Your task to perform on an android device: Do I have any events tomorrow? Image 0: 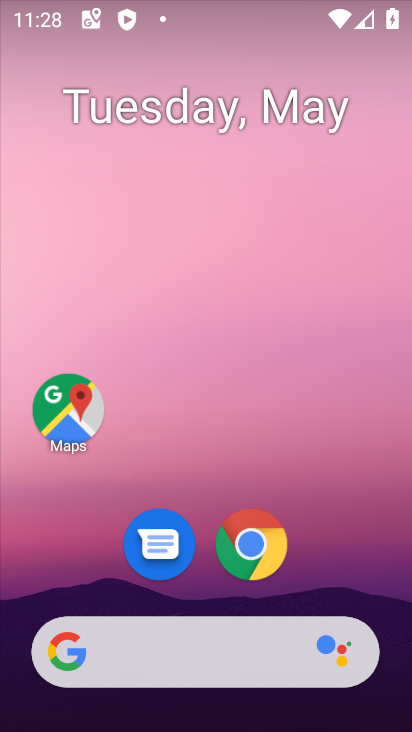
Step 0: drag from (281, 456) to (189, 176)
Your task to perform on an android device: Do I have any events tomorrow? Image 1: 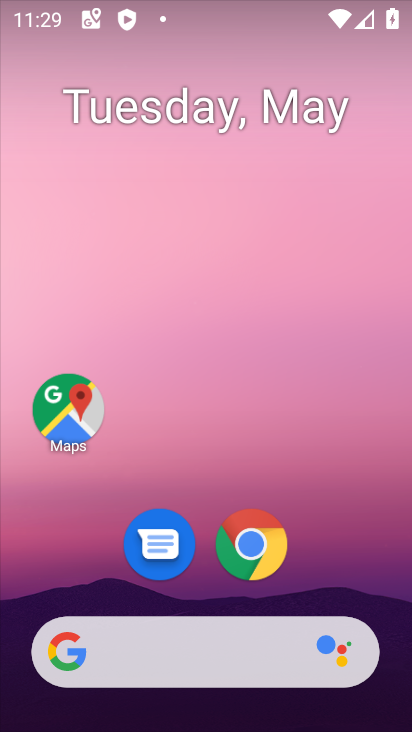
Step 1: drag from (368, 517) to (152, 2)
Your task to perform on an android device: Do I have any events tomorrow? Image 2: 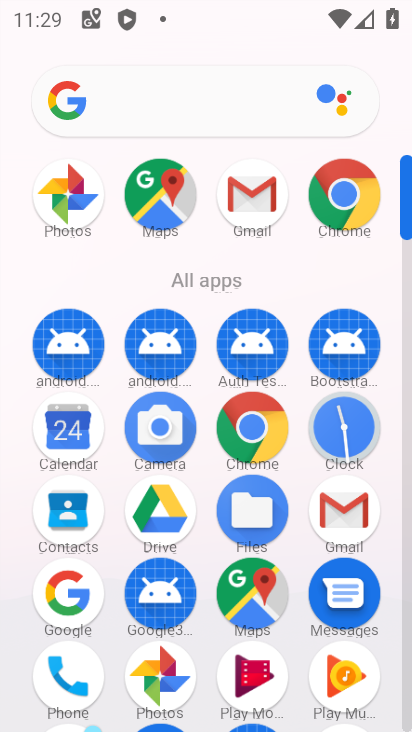
Step 2: click (346, 201)
Your task to perform on an android device: Do I have any events tomorrow? Image 3: 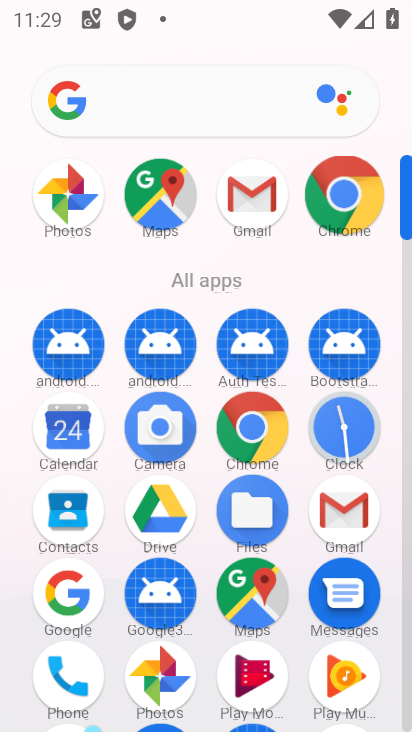
Step 3: click (350, 207)
Your task to perform on an android device: Do I have any events tomorrow? Image 4: 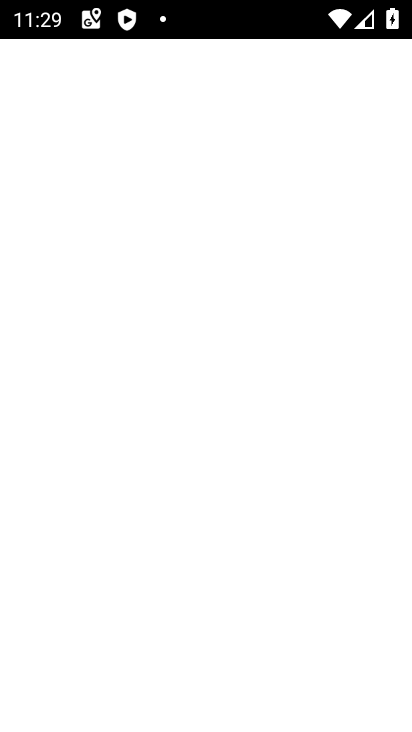
Step 4: click (349, 205)
Your task to perform on an android device: Do I have any events tomorrow? Image 5: 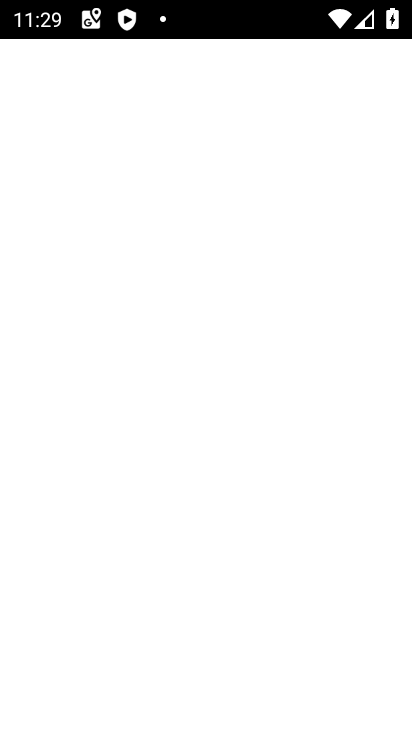
Step 5: click (349, 205)
Your task to perform on an android device: Do I have any events tomorrow? Image 6: 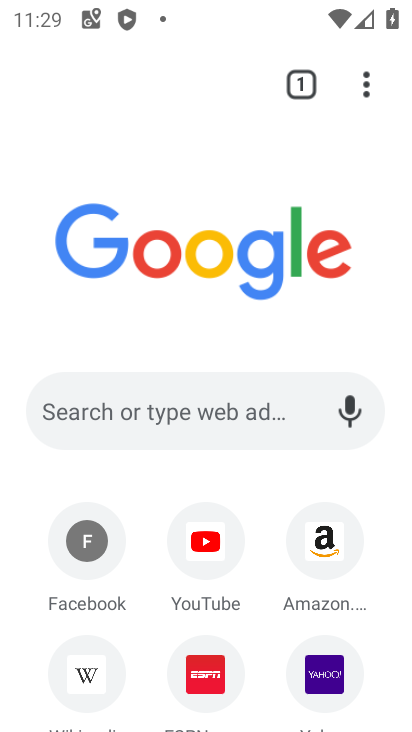
Step 6: press back button
Your task to perform on an android device: Do I have any events tomorrow? Image 7: 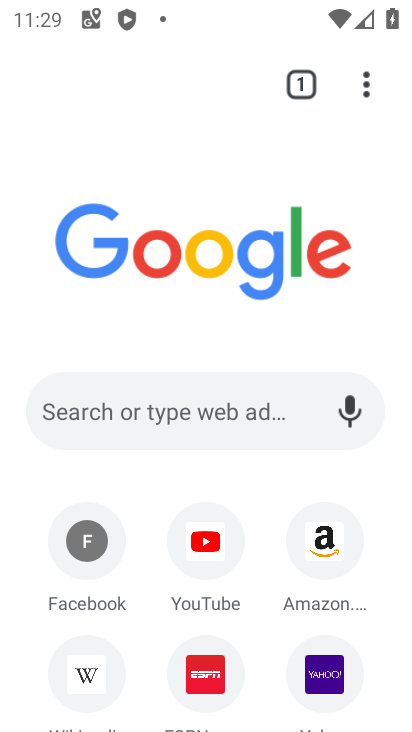
Step 7: press back button
Your task to perform on an android device: Do I have any events tomorrow? Image 8: 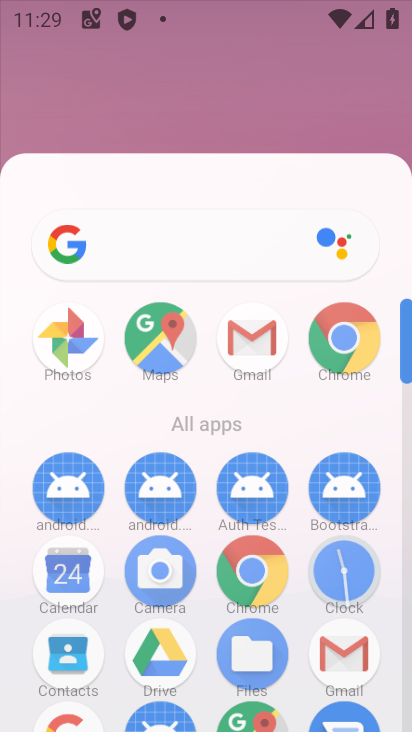
Step 8: press back button
Your task to perform on an android device: Do I have any events tomorrow? Image 9: 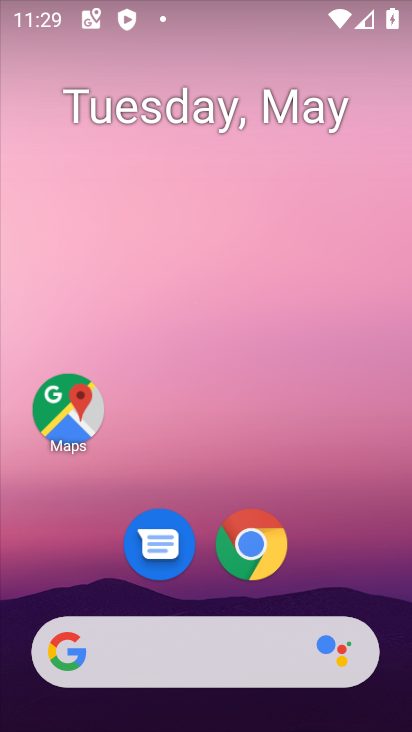
Step 9: drag from (309, 669) to (215, 129)
Your task to perform on an android device: Do I have any events tomorrow? Image 10: 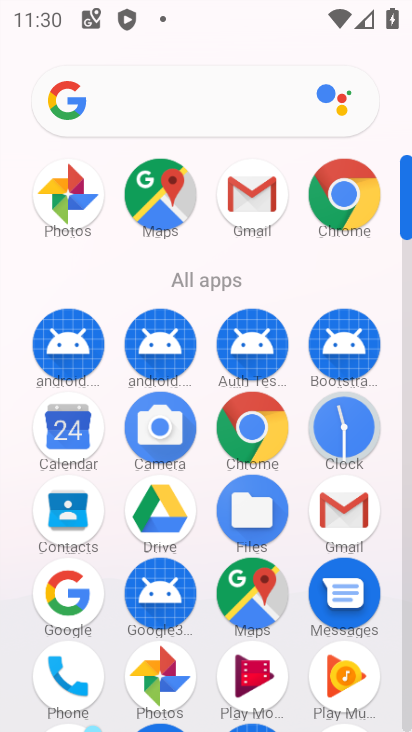
Step 10: drag from (120, 269) to (88, 144)
Your task to perform on an android device: Do I have any events tomorrow? Image 11: 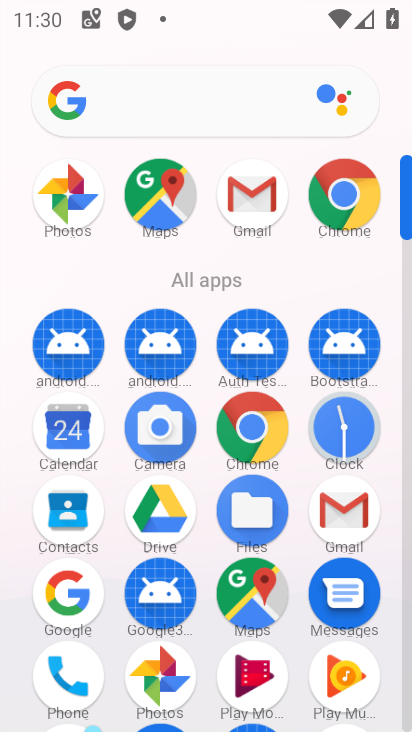
Step 11: drag from (106, 378) to (162, 122)
Your task to perform on an android device: Do I have any events tomorrow? Image 12: 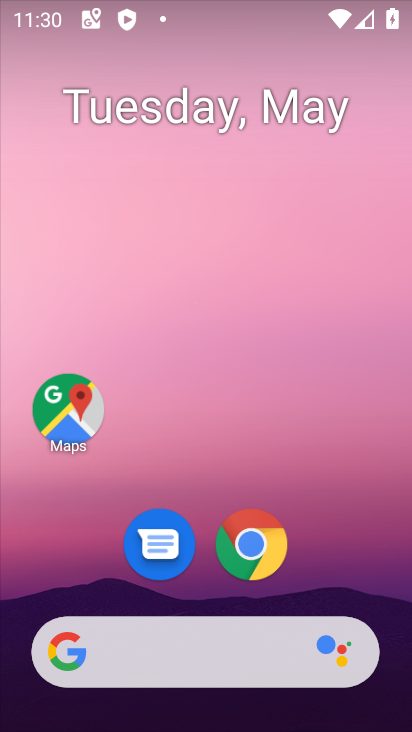
Step 12: drag from (174, 586) to (184, 289)
Your task to perform on an android device: Do I have any events tomorrow? Image 13: 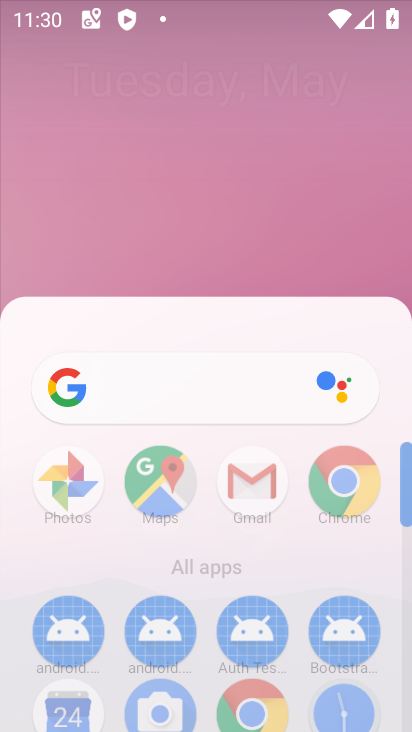
Step 13: drag from (194, 492) to (239, 181)
Your task to perform on an android device: Do I have any events tomorrow? Image 14: 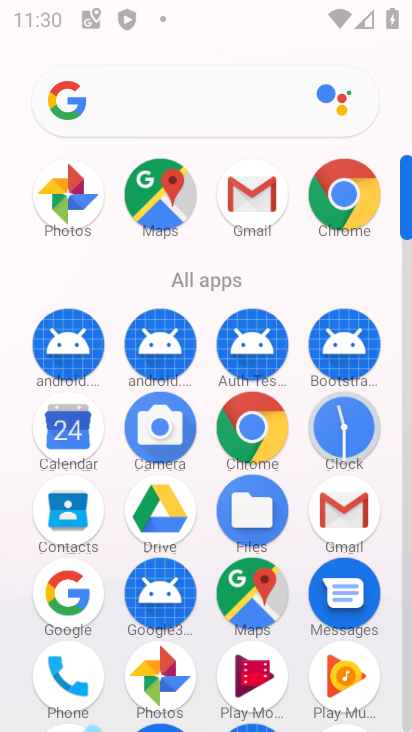
Step 14: click (218, 163)
Your task to perform on an android device: Do I have any events tomorrow? Image 15: 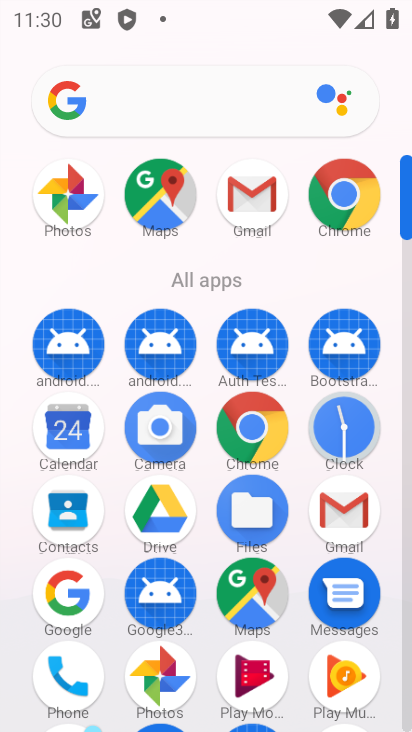
Step 15: click (80, 430)
Your task to perform on an android device: Do I have any events tomorrow? Image 16: 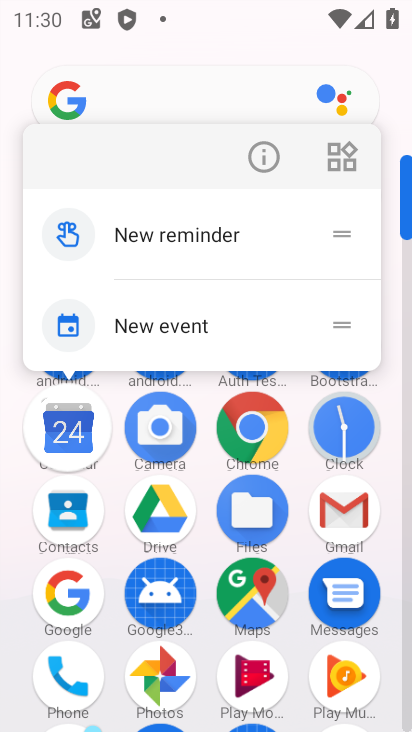
Step 16: click (66, 435)
Your task to perform on an android device: Do I have any events tomorrow? Image 17: 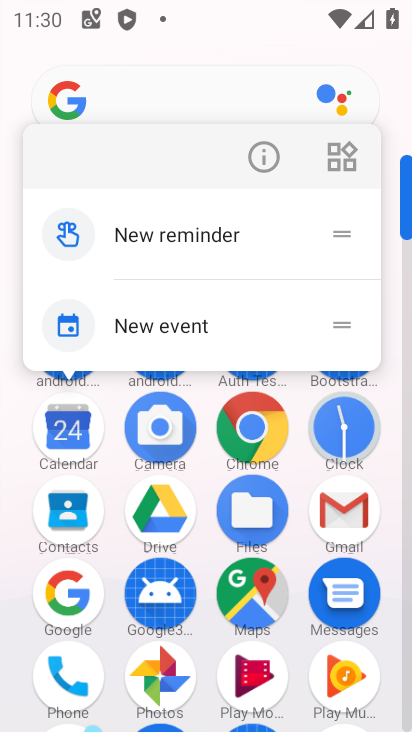
Step 17: click (68, 423)
Your task to perform on an android device: Do I have any events tomorrow? Image 18: 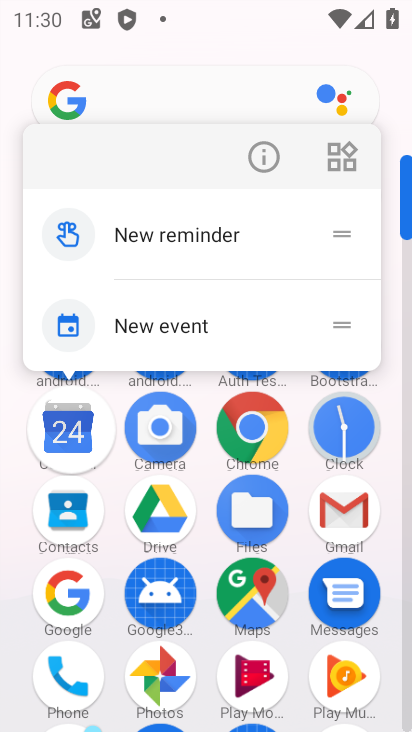
Step 18: click (80, 439)
Your task to perform on an android device: Do I have any events tomorrow? Image 19: 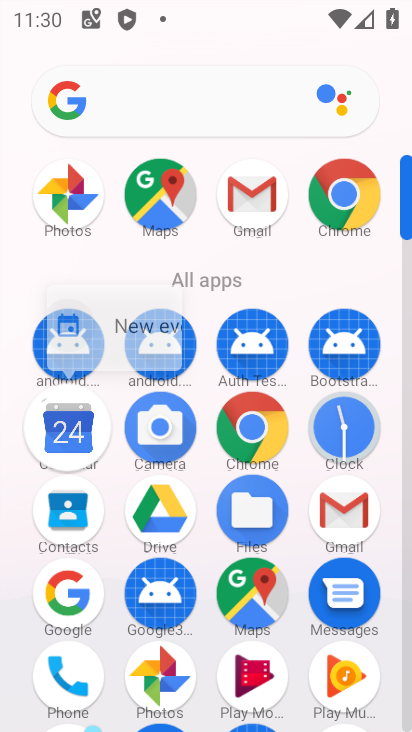
Step 19: click (78, 438)
Your task to perform on an android device: Do I have any events tomorrow? Image 20: 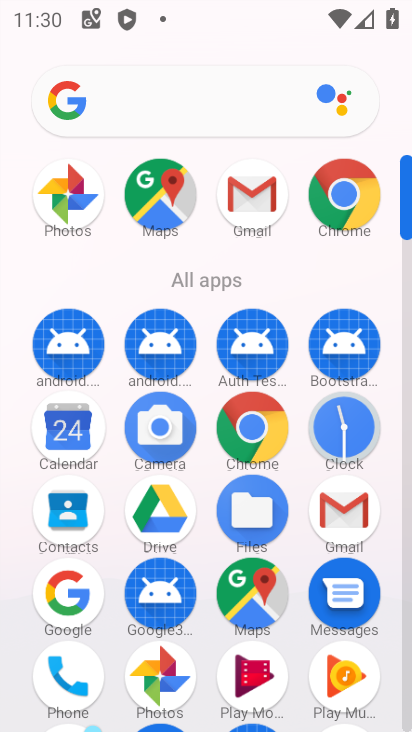
Step 20: click (69, 438)
Your task to perform on an android device: Do I have any events tomorrow? Image 21: 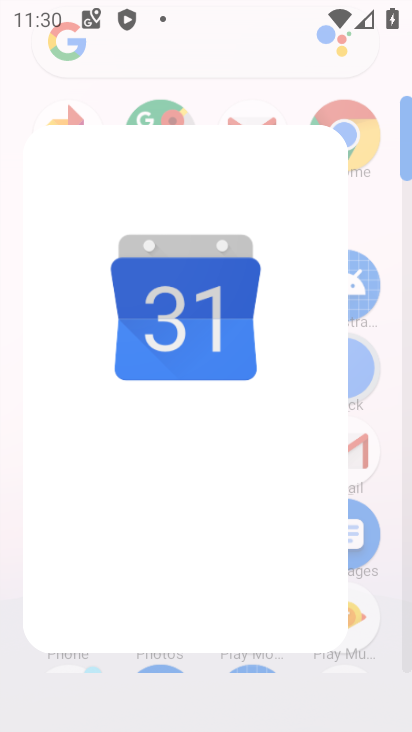
Step 21: click (74, 433)
Your task to perform on an android device: Do I have any events tomorrow? Image 22: 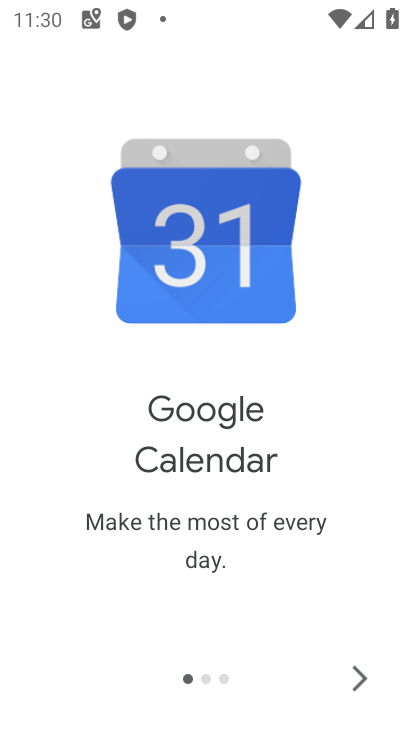
Step 22: click (367, 670)
Your task to perform on an android device: Do I have any events tomorrow? Image 23: 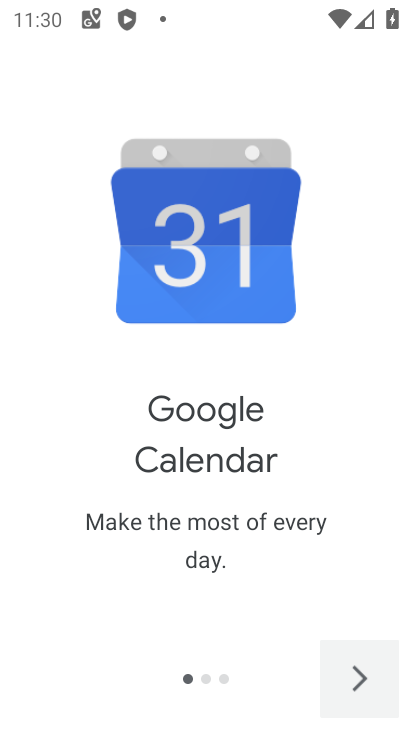
Step 23: click (367, 670)
Your task to perform on an android device: Do I have any events tomorrow? Image 24: 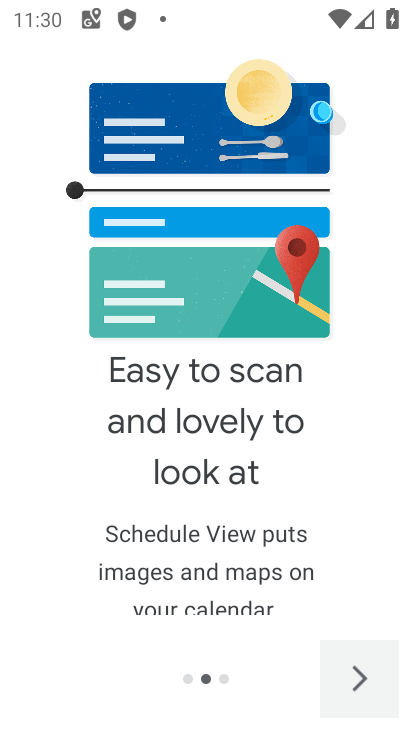
Step 24: click (368, 670)
Your task to perform on an android device: Do I have any events tomorrow? Image 25: 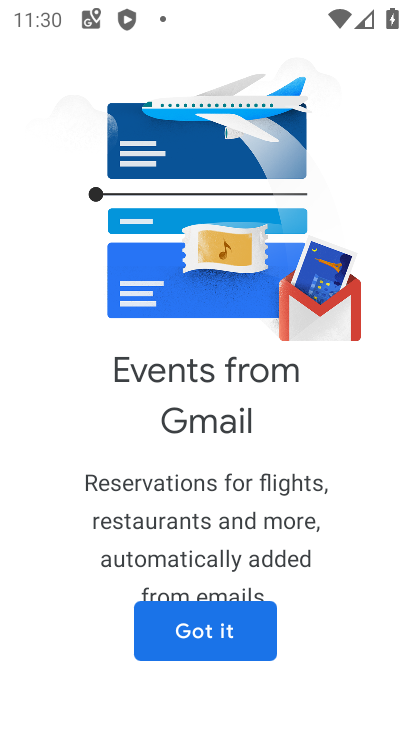
Step 25: click (359, 679)
Your task to perform on an android device: Do I have any events tomorrow? Image 26: 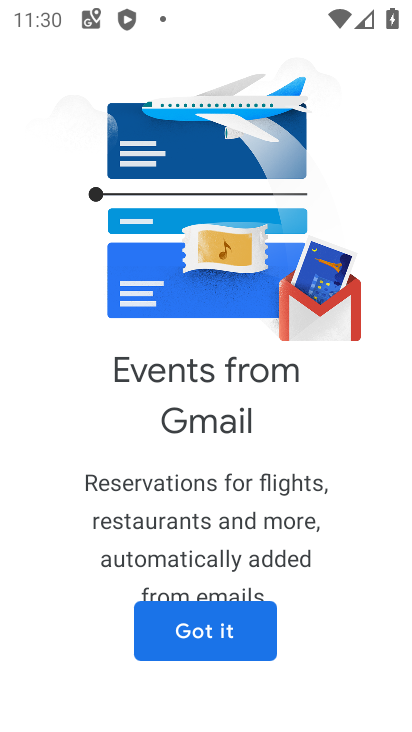
Step 26: click (358, 680)
Your task to perform on an android device: Do I have any events tomorrow? Image 27: 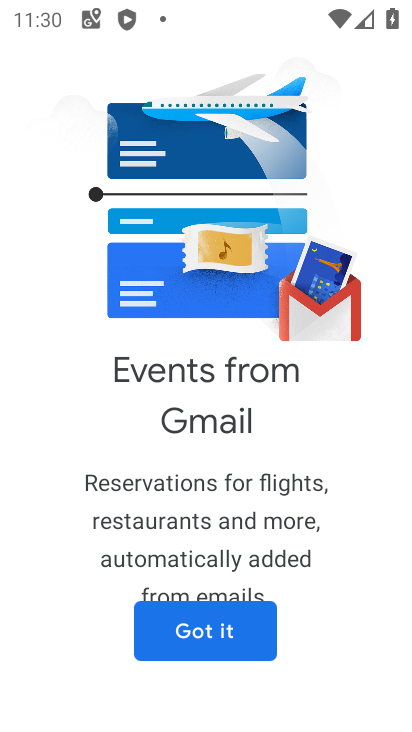
Step 27: click (203, 626)
Your task to perform on an android device: Do I have any events tomorrow? Image 28: 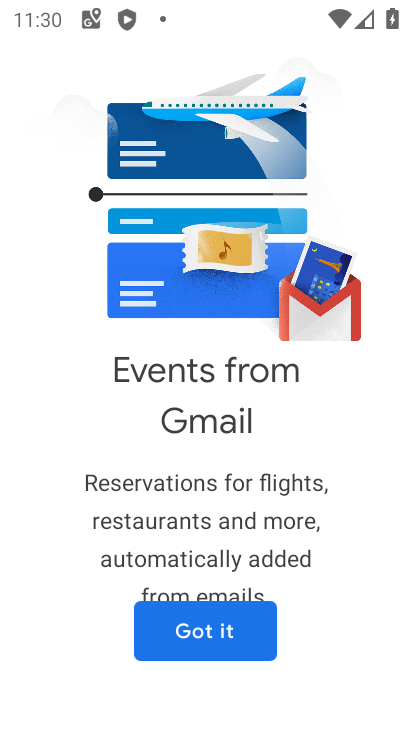
Step 28: click (200, 623)
Your task to perform on an android device: Do I have any events tomorrow? Image 29: 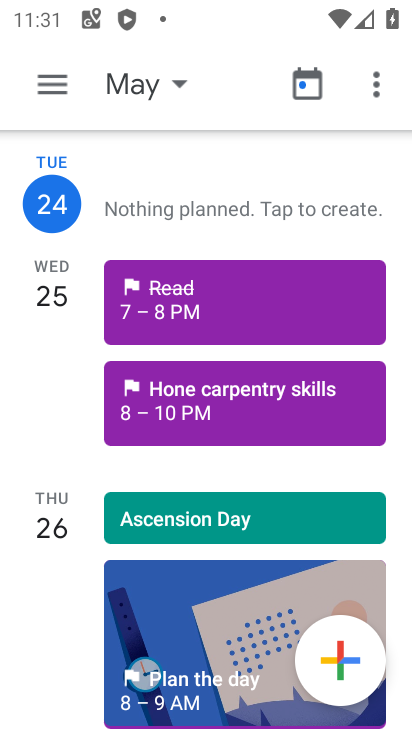
Step 29: task complete